Your task to perform on an android device: change notification settings in the gmail app Image 0: 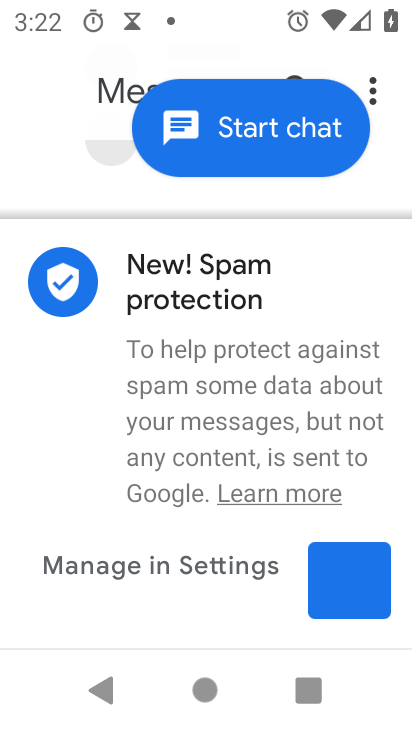
Step 0: press home button
Your task to perform on an android device: change notification settings in the gmail app Image 1: 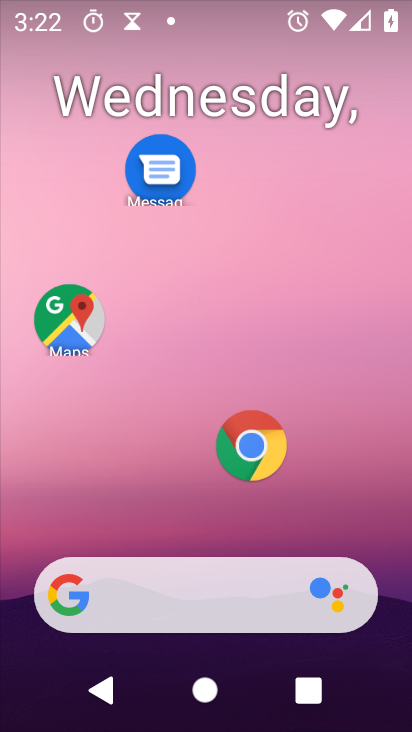
Step 1: drag from (3, 694) to (251, 207)
Your task to perform on an android device: change notification settings in the gmail app Image 2: 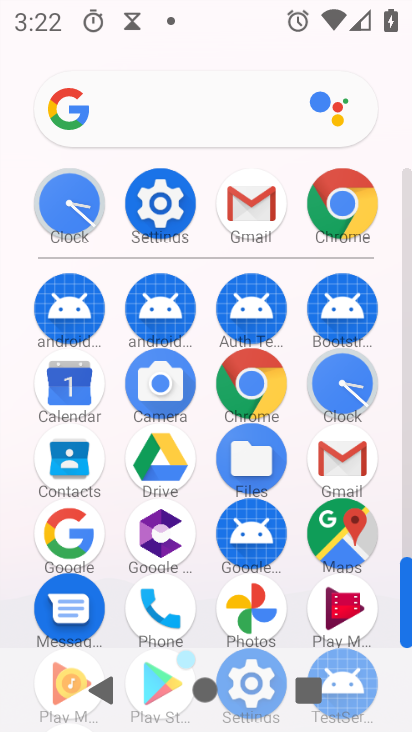
Step 2: click (238, 224)
Your task to perform on an android device: change notification settings in the gmail app Image 3: 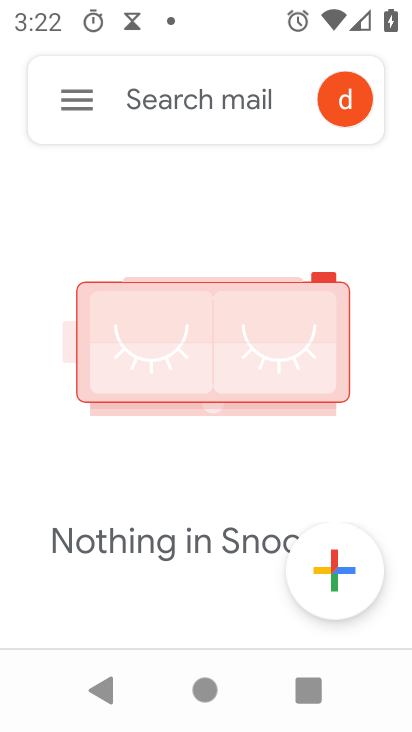
Step 3: click (63, 91)
Your task to perform on an android device: change notification settings in the gmail app Image 4: 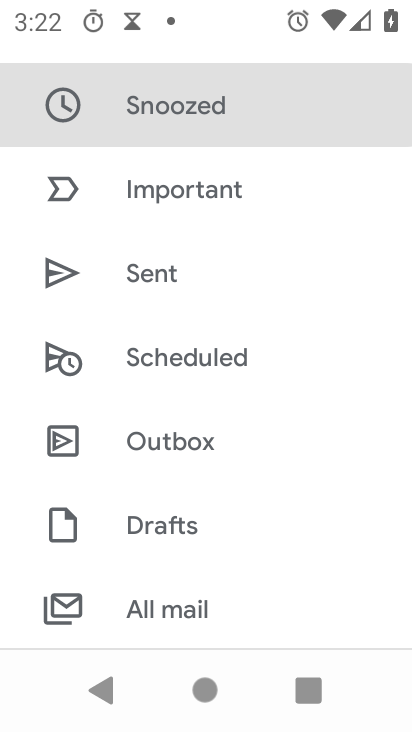
Step 4: drag from (12, 527) to (142, 58)
Your task to perform on an android device: change notification settings in the gmail app Image 5: 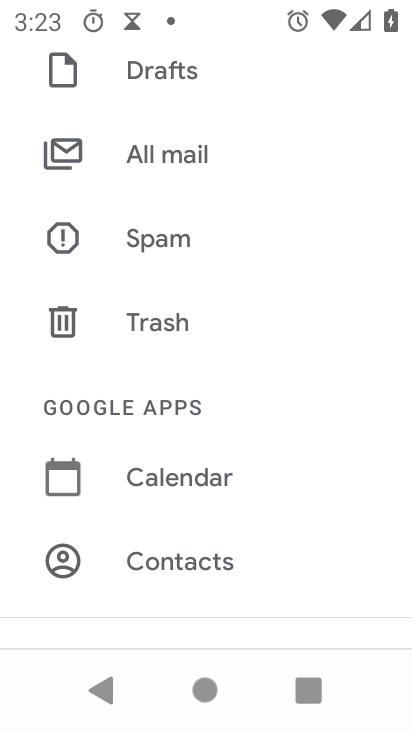
Step 5: drag from (26, 600) to (218, 78)
Your task to perform on an android device: change notification settings in the gmail app Image 6: 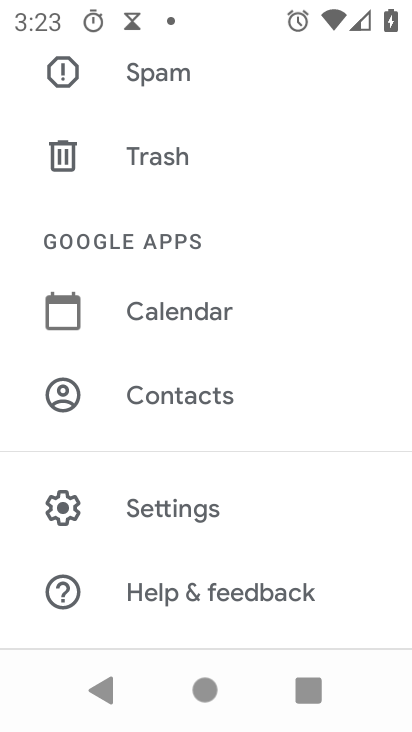
Step 6: click (226, 512)
Your task to perform on an android device: change notification settings in the gmail app Image 7: 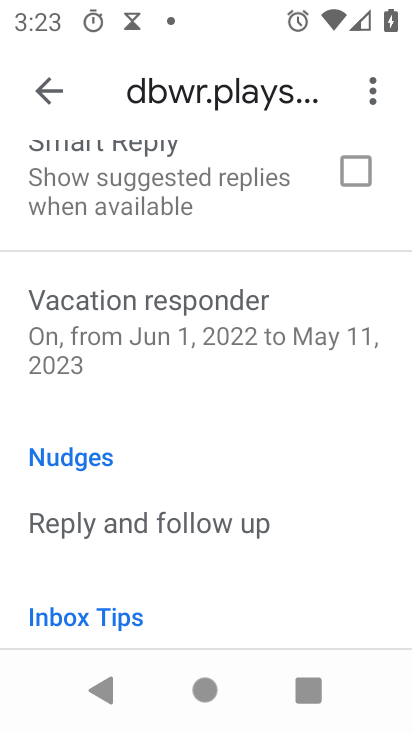
Step 7: drag from (253, 92) to (223, 637)
Your task to perform on an android device: change notification settings in the gmail app Image 8: 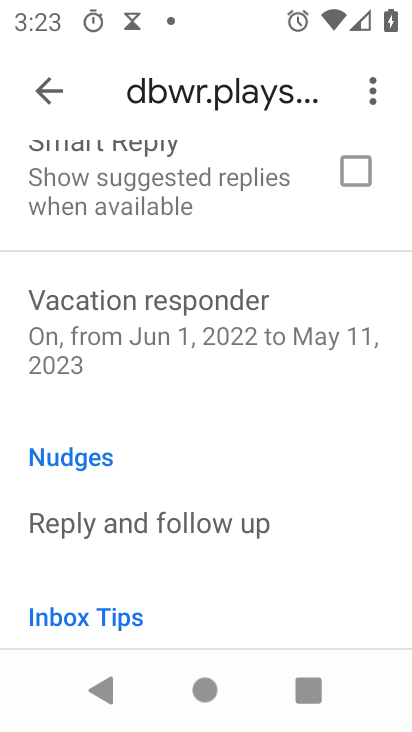
Step 8: drag from (128, 162) to (133, 482)
Your task to perform on an android device: change notification settings in the gmail app Image 9: 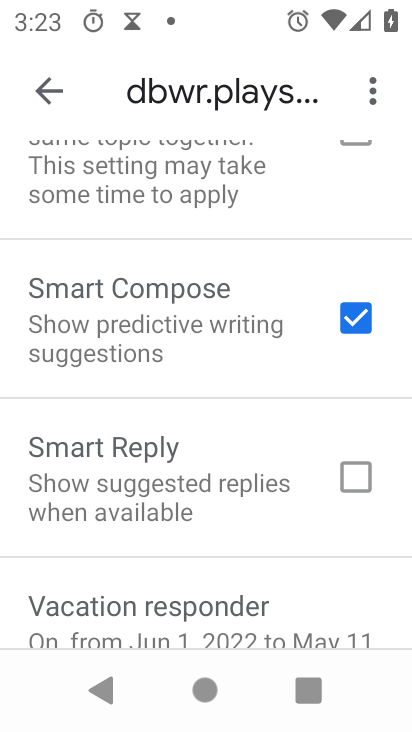
Step 9: drag from (197, 185) to (160, 584)
Your task to perform on an android device: change notification settings in the gmail app Image 10: 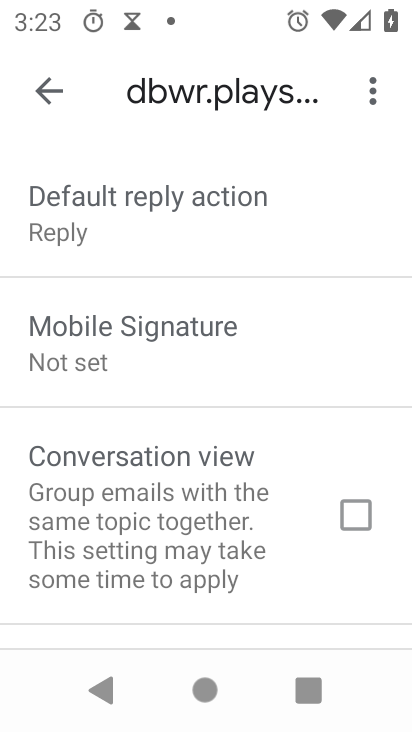
Step 10: drag from (206, 198) to (201, 549)
Your task to perform on an android device: change notification settings in the gmail app Image 11: 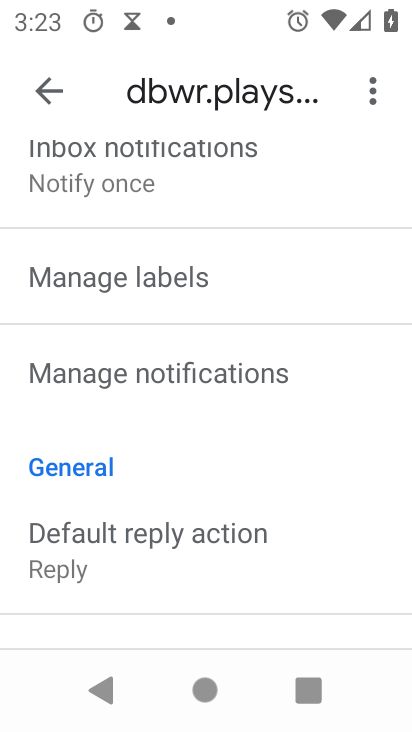
Step 11: click (199, 363)
Your task to perform on an android device: change notification settings in the gmail app Image 12: 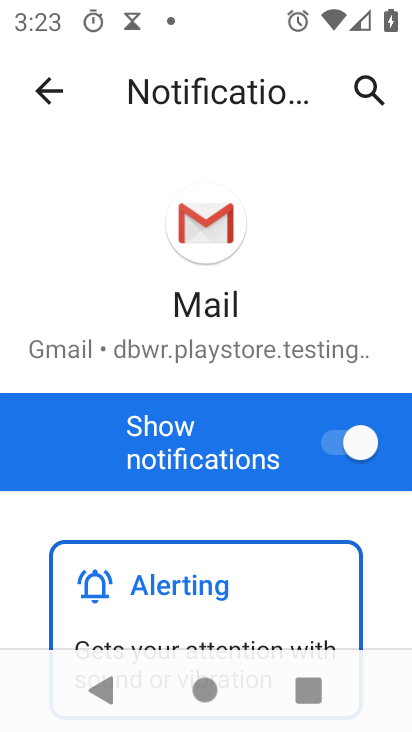
Step 12: task complete